Your task to perform on an android device: What's on my calendar tomorrow? Image 0: 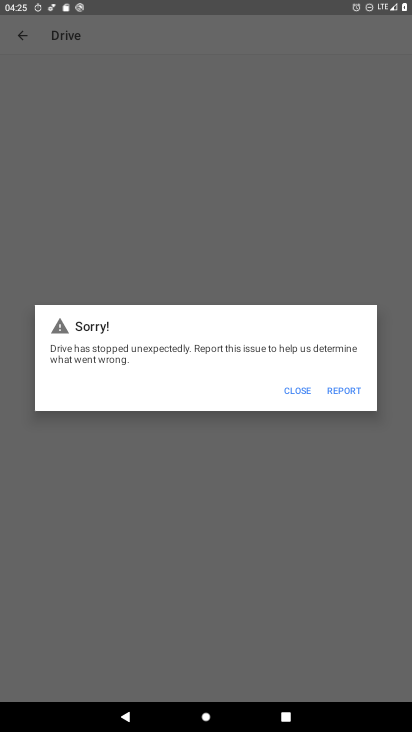
Step 0: press home button
Your task to perform on an android device: What's on my calendar tomorrow? Image 1: 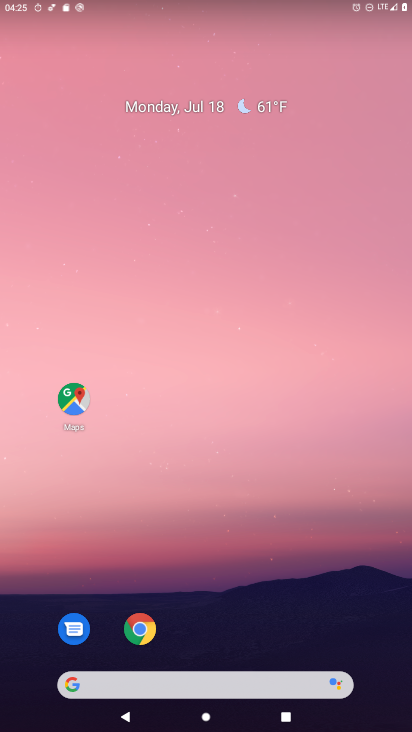
Step 1: drag from (209, 682) to (205, 221)
Your task to perform on an android device: What's on my calendar tomorrow? Image 2: 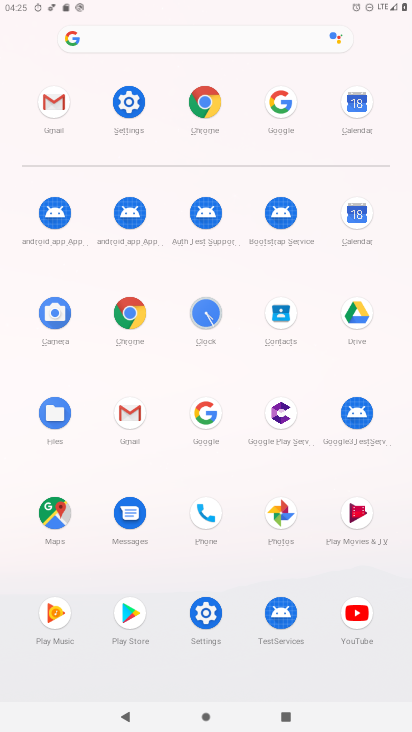
Step 2: click (360, 104)
Your task to perform on an android device: What's on my calendar tomorrow? Image 3: 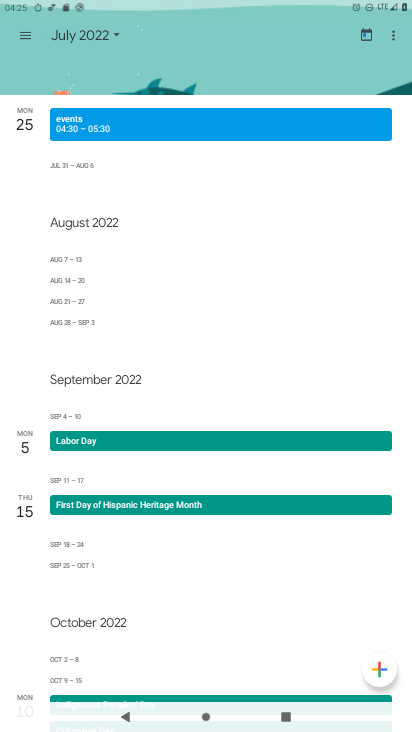
Step 3: click (371, 33)
Your task to perform on an android device: What's on my calendar tomorrow? Image 4: 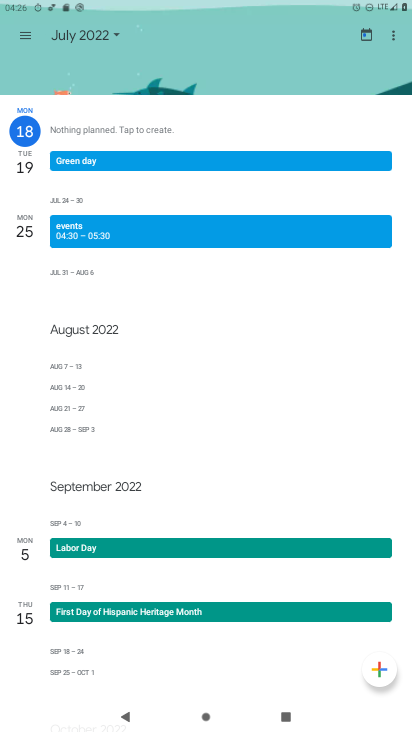
Step 4: click (116, 32)
Your task to perform on an android device: What's on my calendar tomorrow? Image 5: 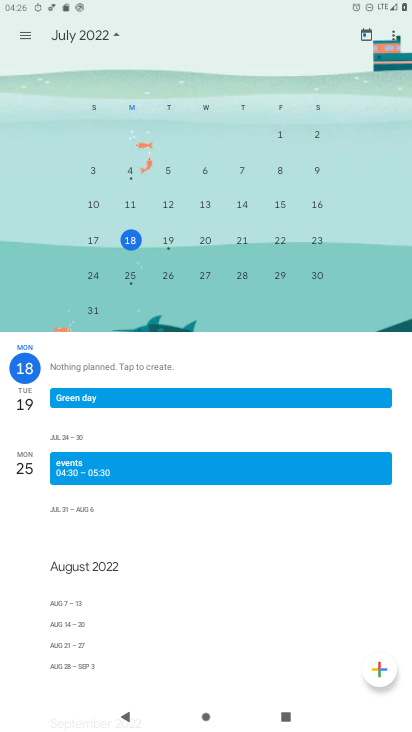
Step 5: click (165, 245)
Your task to perform on an android device: What's on my calendar tomorrow? Image 6: 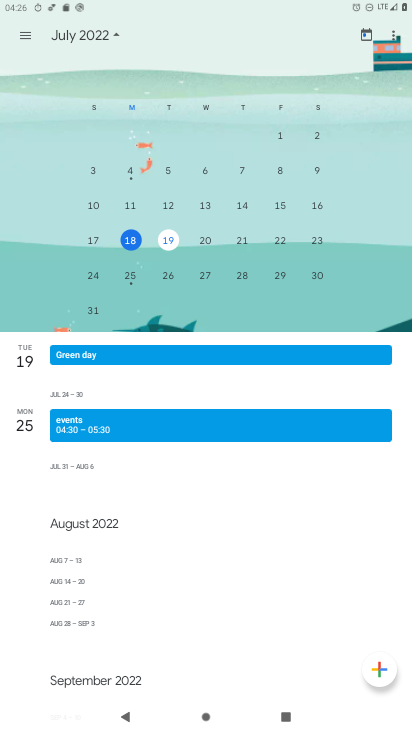
Step 6: click (29, 33)
Your task to perform on an android device: What's on my calendar tomorrow? Image 7: 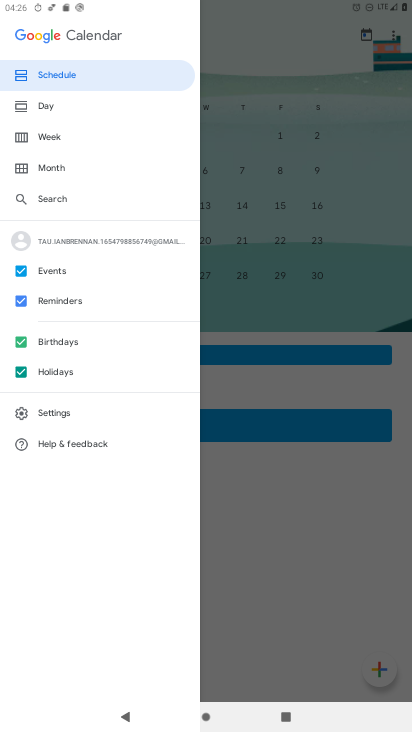
Step 7: click (43, 71)
Your task to perform on an android device: What's on my calendar tomorrow? Image 8: 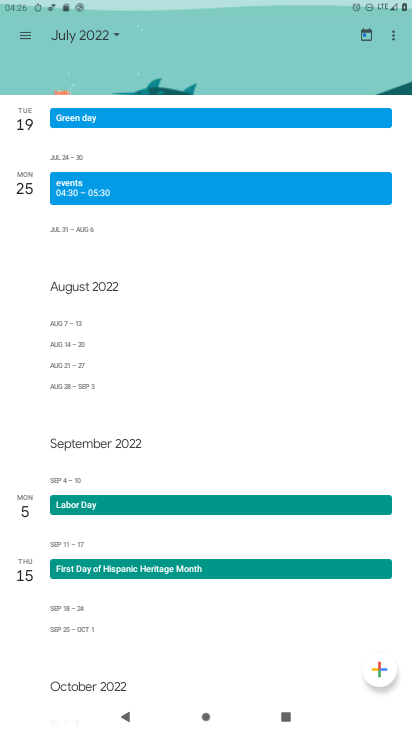
Step 8: task complete